Your task to perform on an android device: Turn on the flashlight Image 0: 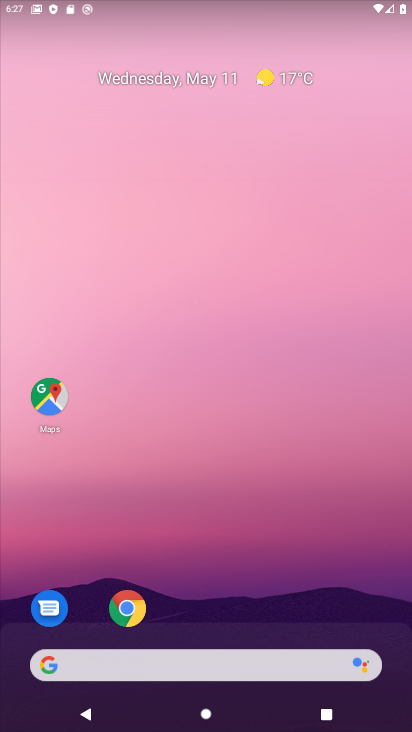
Step 0: drag from (327, 599) to (279, 79)
Your task to perform on an android device: Turn on the flashlight Image 1: 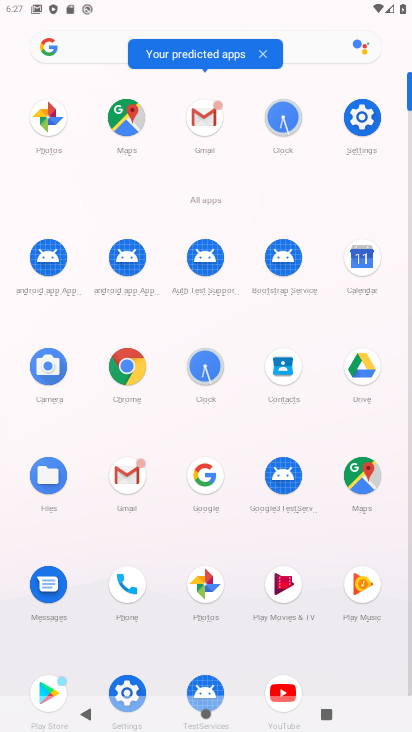
Step 1: click (346, 141)
Your task to perform on an android device: Turn on the flashlight Image 2: 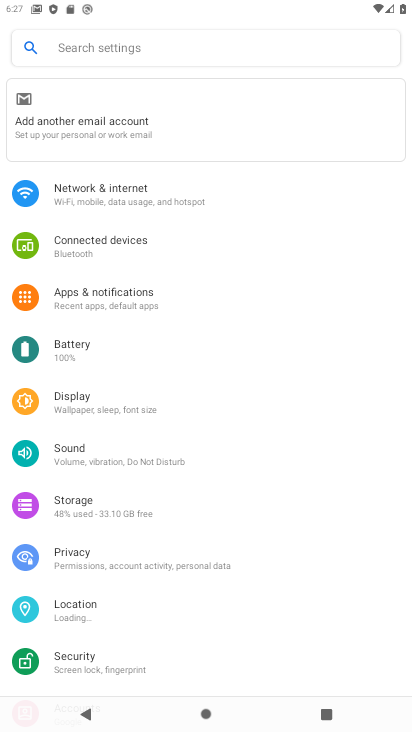
Step 2: click (236, 460)
Your task to perform on an android device: Turn on the flashlight Image 3: 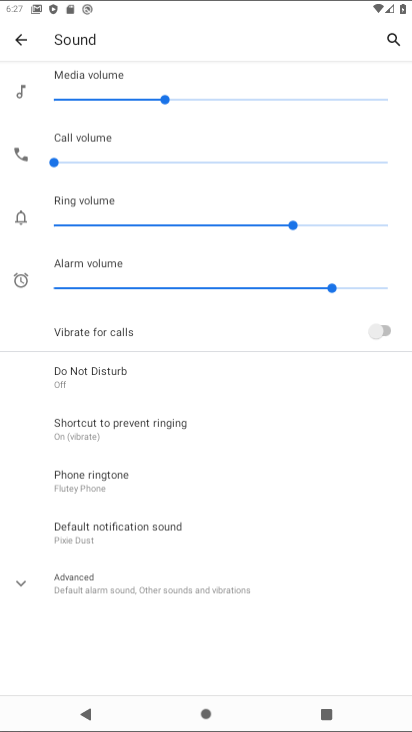
Step 3: task complete